Your task to perform on an android device: open a bookmark in the chrome app Image 0: 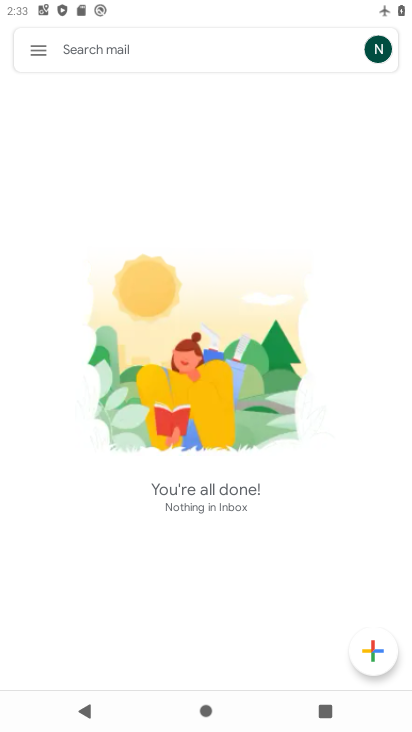
Step 0: press home button
Your task to perform on an android device: open a bookmark in the chrome app Image 1: 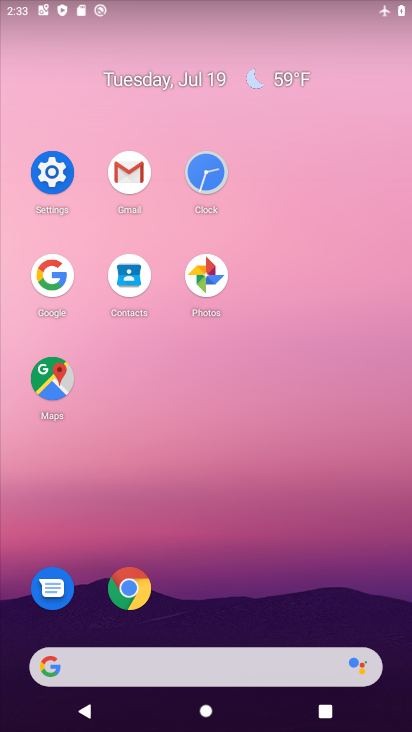
Step 1: click (114, 600)
Your task to perform on an android device: open a bookmark in the chrome app Image 2: 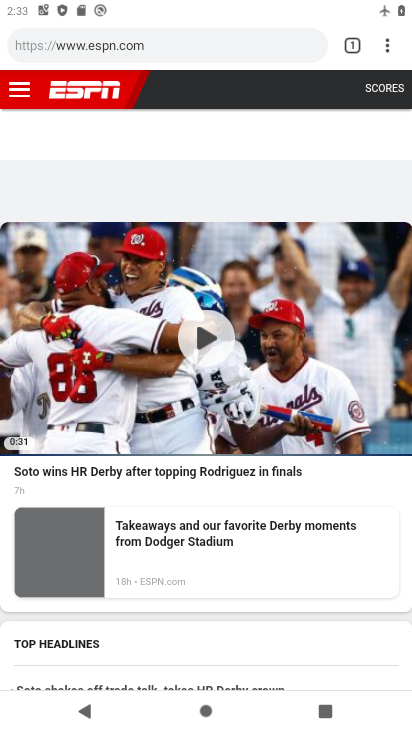
Step 2: click (384, 46)
Your task to perform on an android device: open a bookmark in the chrome app Image 3: 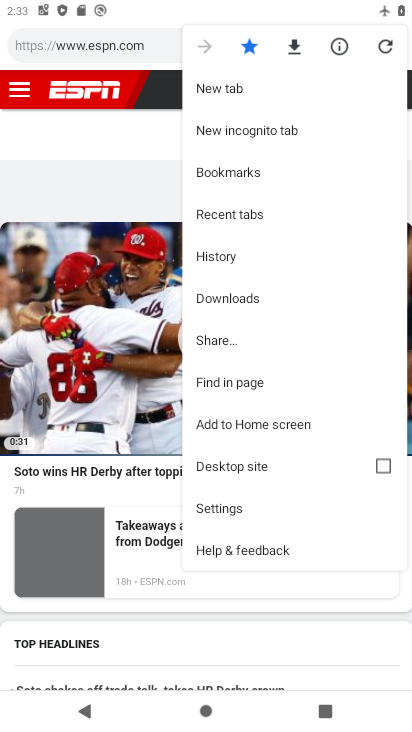
Step 3: click (217, 160)
Your task to perform on an android device: open a bookmark in the chrome app Image 4: 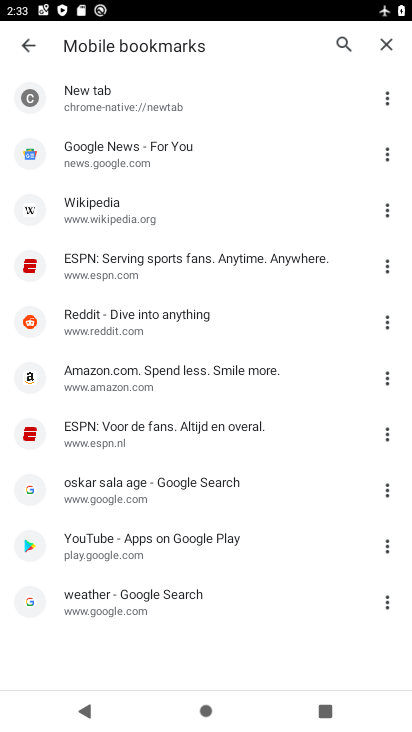
Step 4: task complete